Your task to perform on an android device: stop showing notifications on the lock screen Image 0: 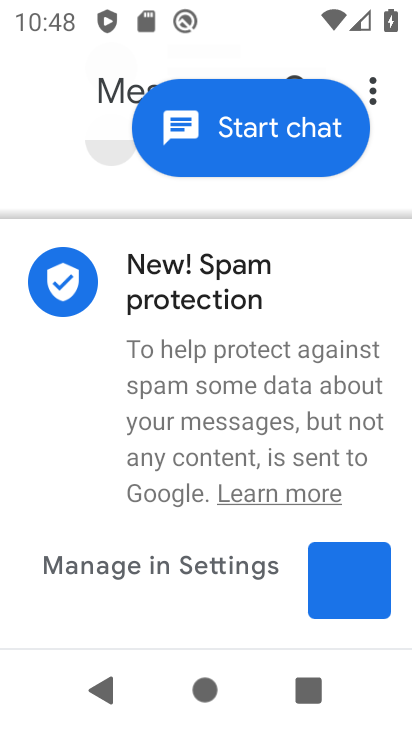
Step 0: press home button
Your task to perform on an android device: stop showing notifications on the lock screen Image 1: 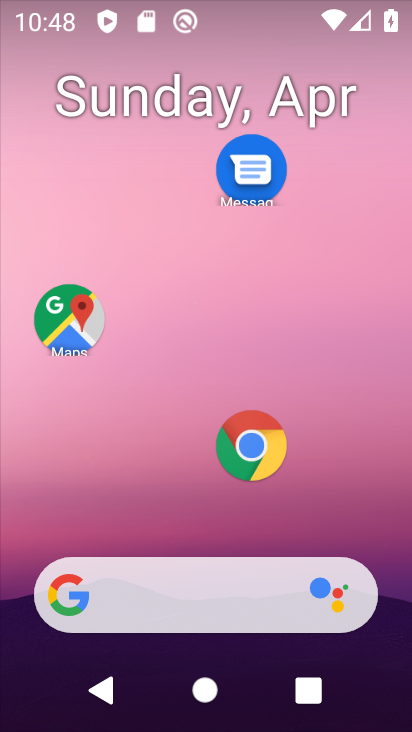
Step 1: drag from (203, 620) to (303, 71)
Your task to perform on an android device: stop showing notifications on the lock screen Image 2: 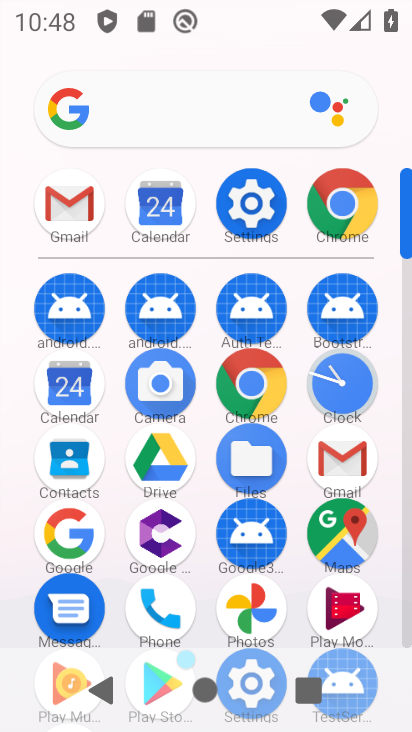
Step 2: click (247, 221)
Your task to perform on an android device: stop showing notifications on the lock screen Image 3: 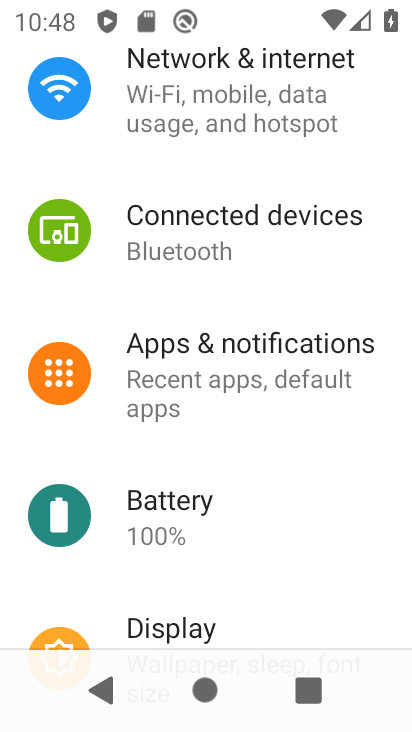
Step 3: click (248, 365)
Your task to perform on an android device: stop showing notifications on the lock screen Image 4: 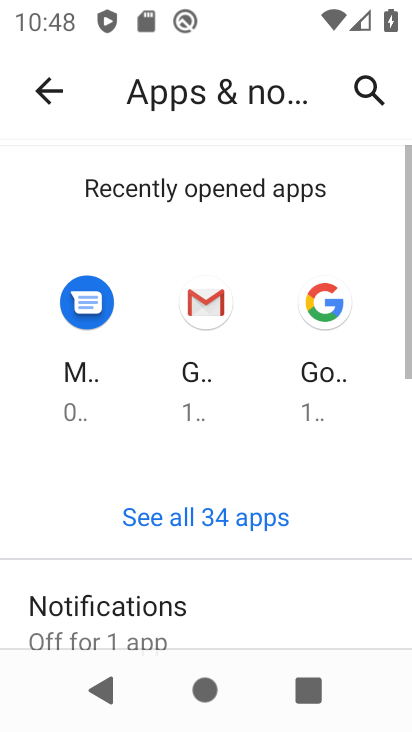
Step 4: drag from (256, 560) to (379, 131)
Your task to perform on an android device: stop showing notifications on the lock screen Image 5: 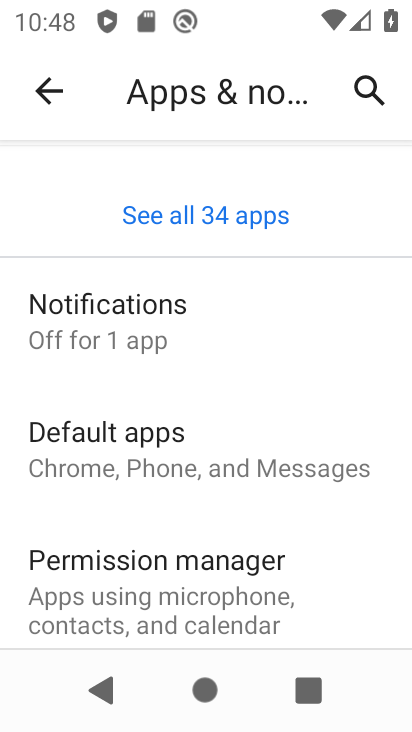
Step 5: click (153, 321)
Your task to perform on an android device: stop showing notifications on the lock screen Image 6: 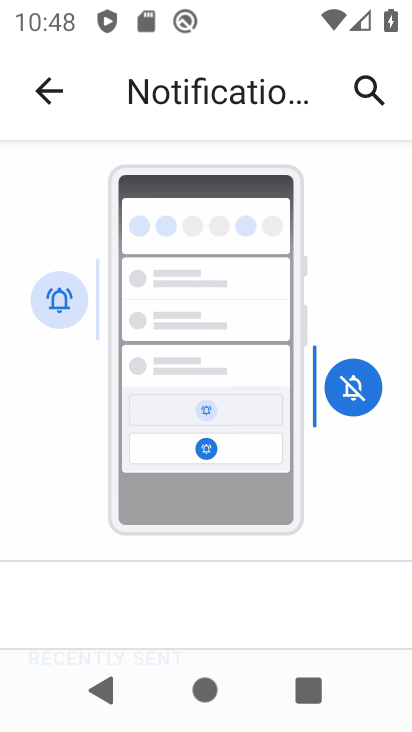
Step 6: drag from (231, 480) to (346, 128)
Your task to perform on an android device: stop showing notifications on the lock screen Image 7: 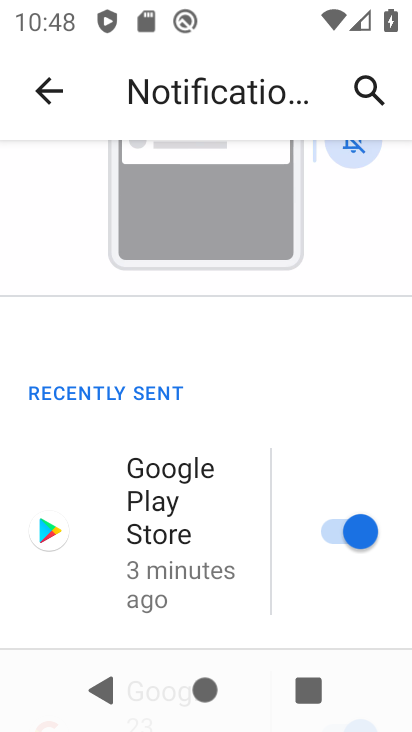
Step 7: drag from (184, 597) to (333, 216)
Your task to perform on an android device: stop showing notifications on the lock screen Image 8: 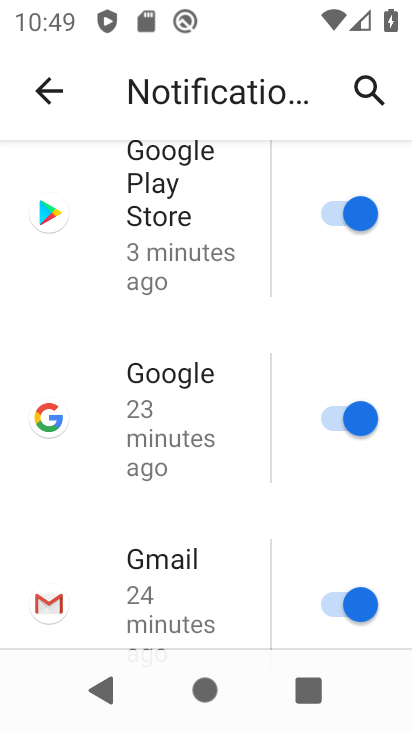
Step 8: drag from (210, 617) to (401, 67)
Your task to perform on an android device: stop showing notifications on the lock screen Image 9: 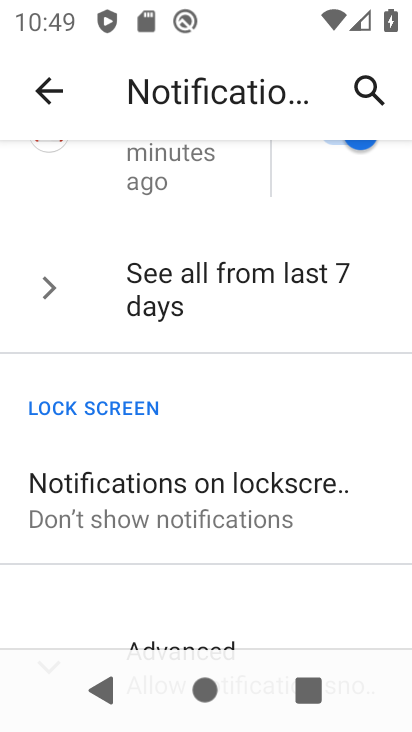
Step 9: click (221, 504)
Your task to perform on an android device: stop showing notifications on the lock screen Image 10: 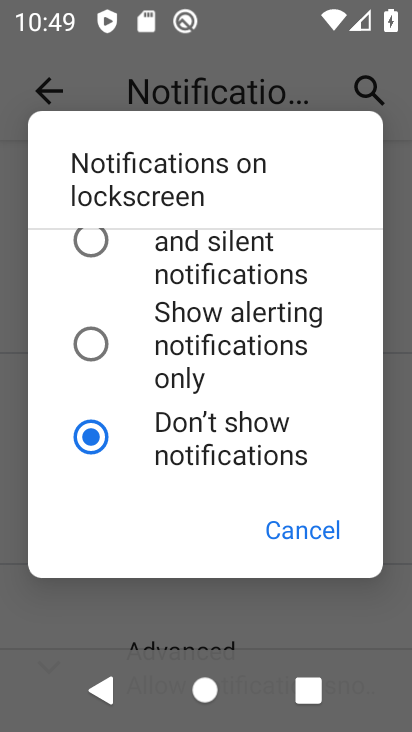
Step 10: task complete